Your task to perform on an android device: turn pop-ups off in chrome Image 0: 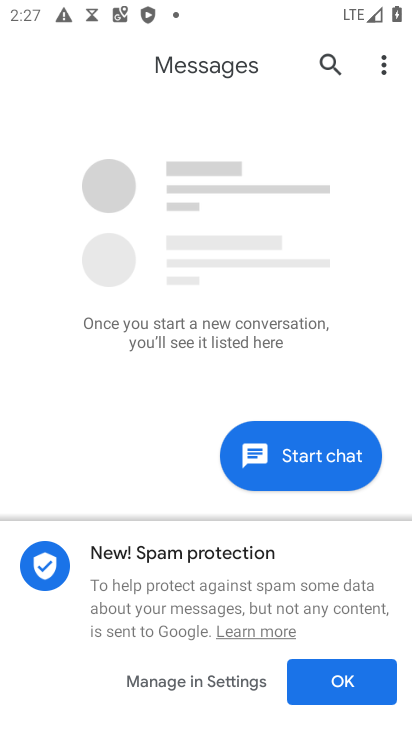
Step 0: press back button
Your task to perform on an android device: turn pop-ups off in chrome Image 1: 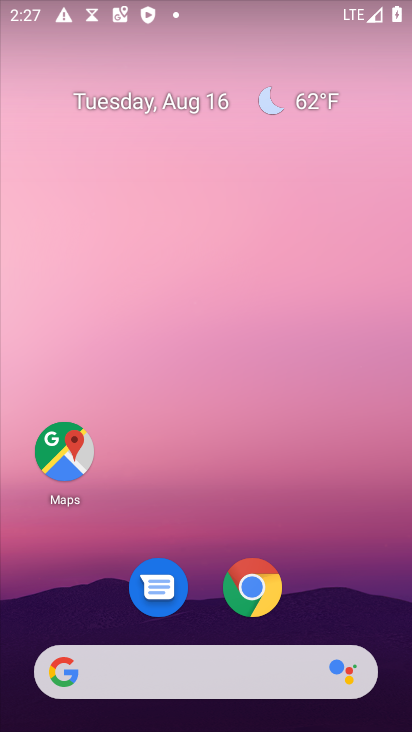
Step 1: click (252, 590)
Your task to perform on an android device: turn pop-ups off in chrome Image 2: 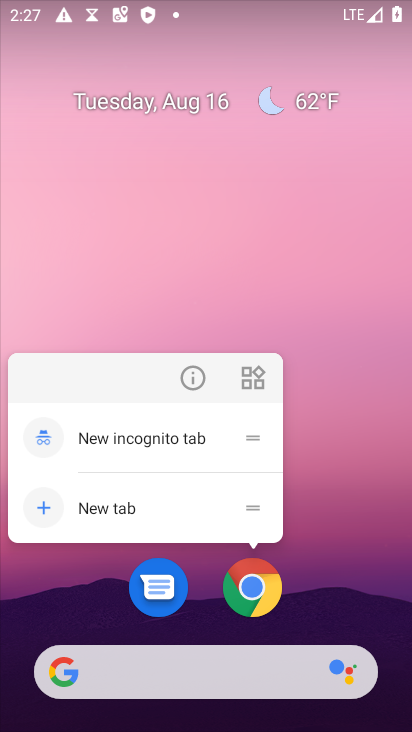
Step 2: click (254, 584)
Your task to perform on an android device: turn pop-ups off in chrome Image 3: 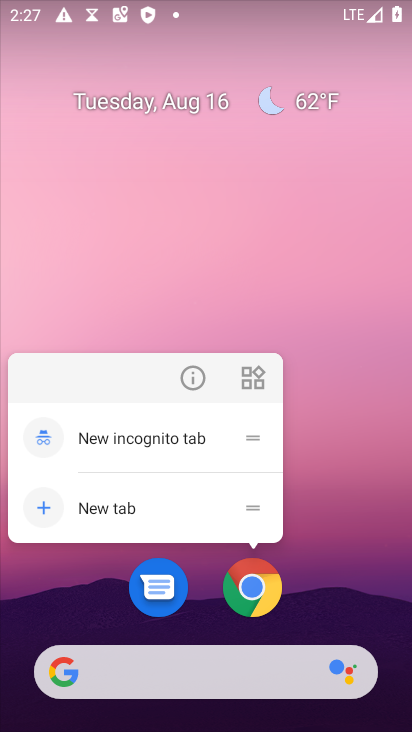
Step 3: click (240, 567)
Your task to perform on an android device: turn pop-ups off in chrome Image 4: 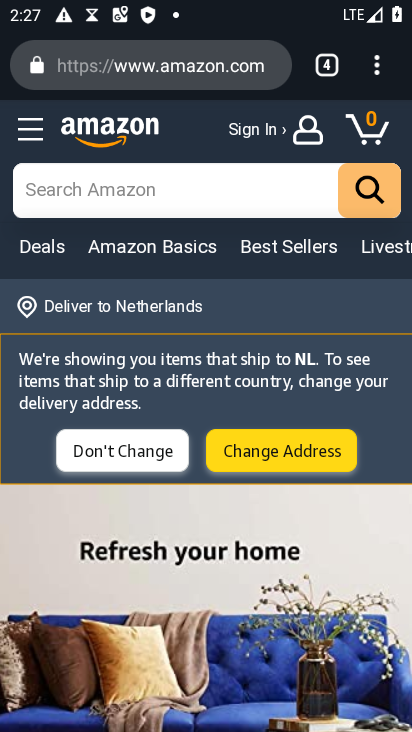
Step 4: drag from (379, 69) to (146, 629)
Your task to perform on an android device: turn pop-ups off in chrome Image 5: 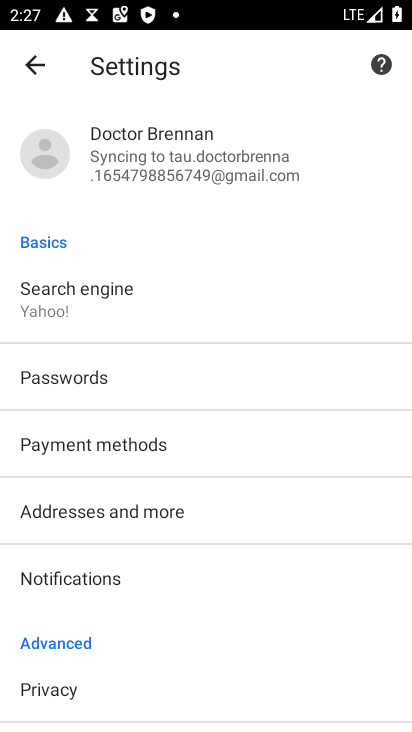
Step 5: drag from (146, 670) to (287, 196)
Your task to perform on an android device: turn pop-ups off in chrome Image 6: 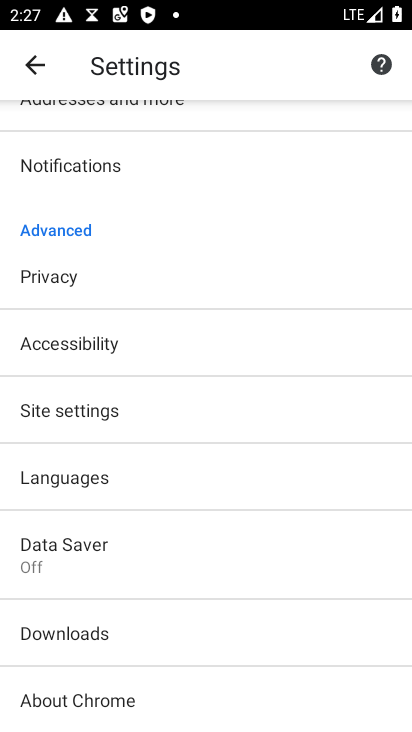
Step 6: click (59, 400)
Your task to perform on an android device: turn pop-ups off in chrome Image 7: 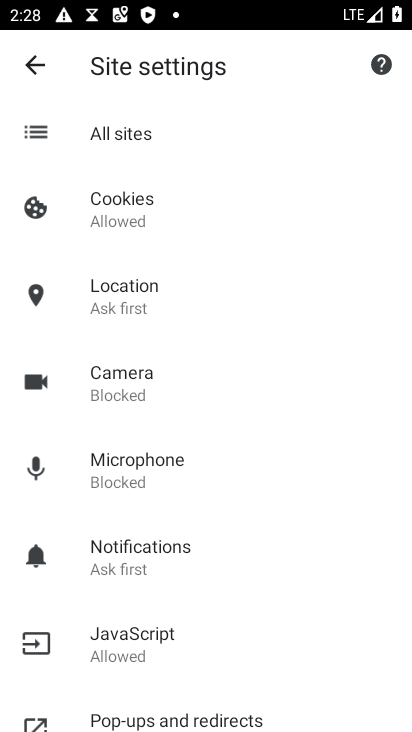
Step 7: drag from (208, 638) to (244, 348)
Your task to perform on an android device: turn pop-ups off in chrome Image 8: 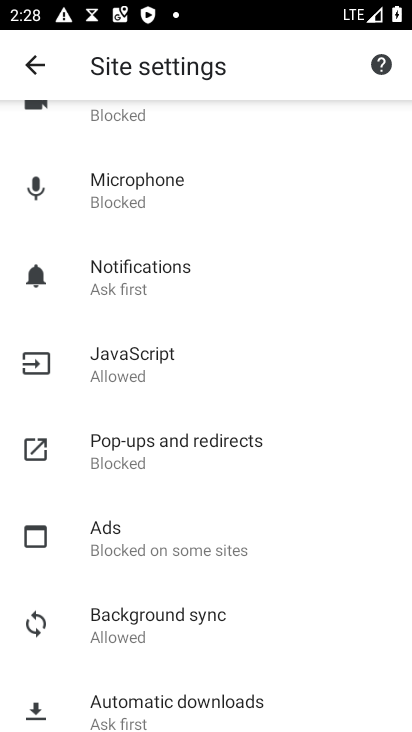
Step 8: click (167, 447)
Your task to perform on an android device: turn pop-ups off in chrome Image 9: 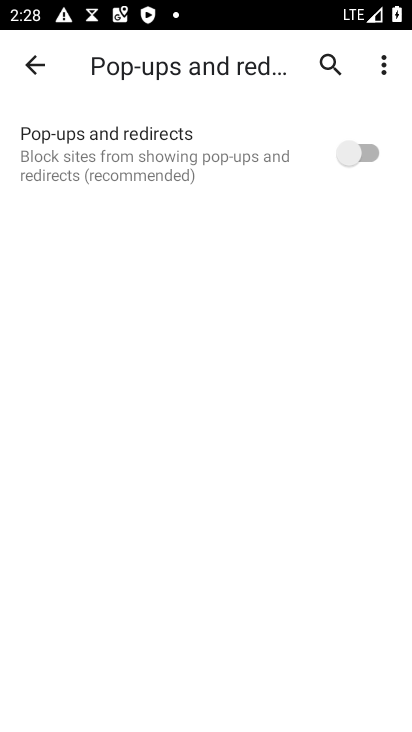
Step 9: task complete